Your task to perform on an android device: Go to Maps Image 0: 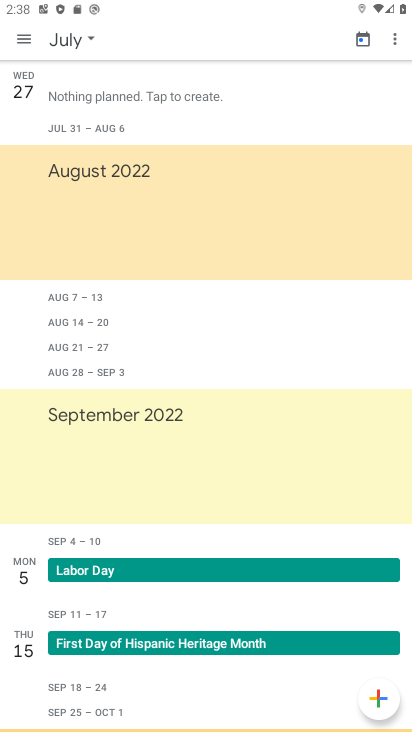
Step 0: press home button
Your task to perform on an android device: Go to Maps Image 1: 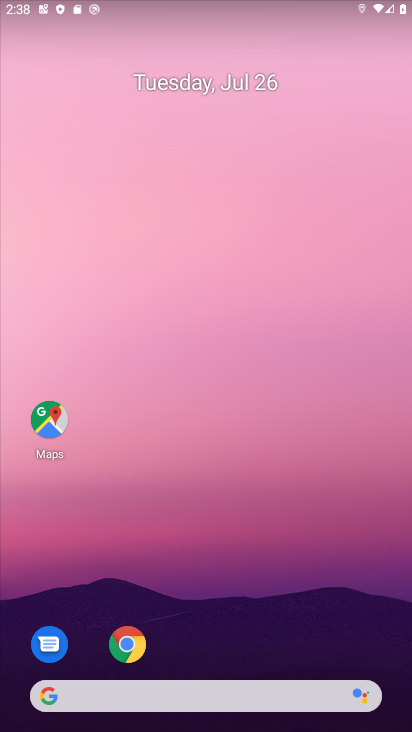
Step 1: click (41, 421)
Your task to perform on an android device: Go to Maps Image 2: 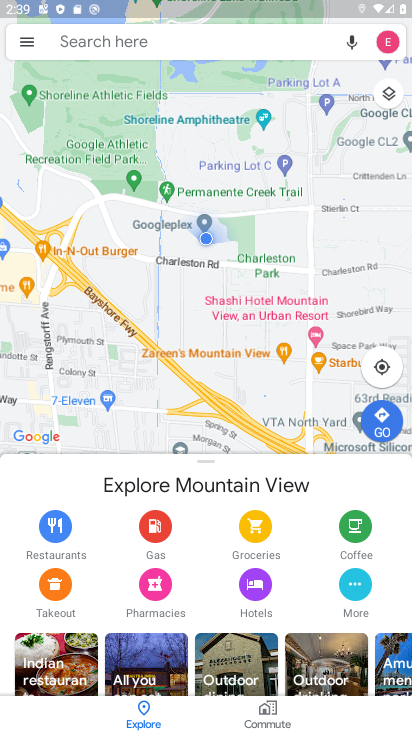
Step 2: task complete